Your task to perform on an android device: turn off location Image 0: 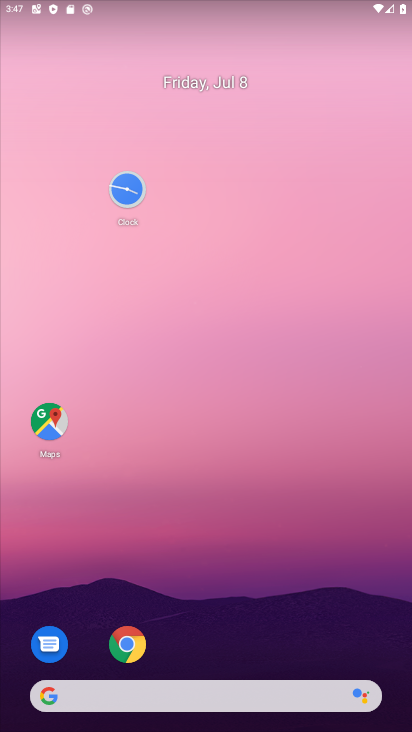
Step 0: drag from (201, 722) to (187, 89)
Your task to perform on an android device: turn off location Image 1: 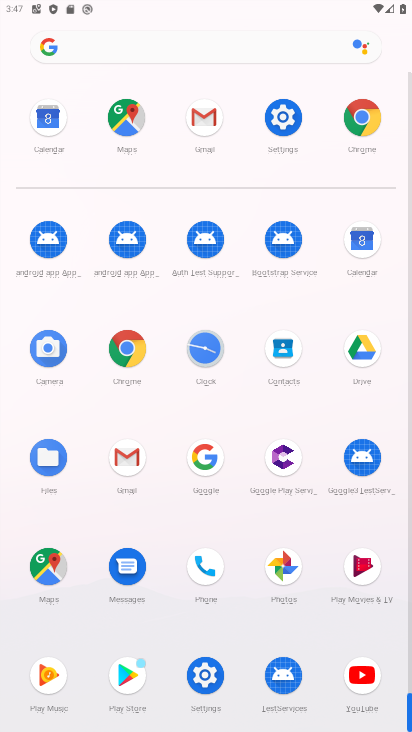
Step 1: click (199, 677)
Your task to perform on an android device: turn off location Image 2: 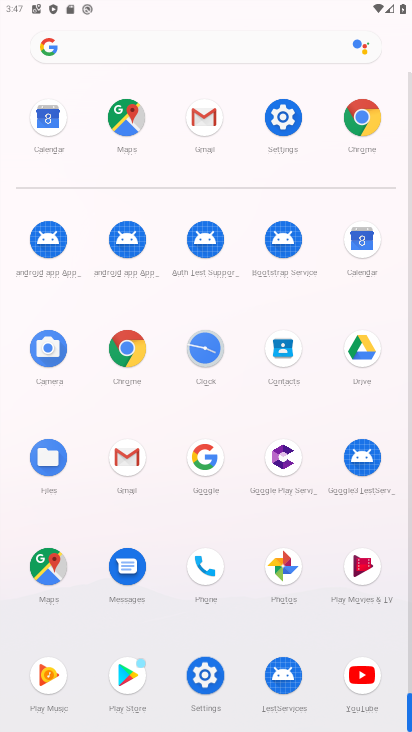
Step 2: click (190, 677)
Your task to perform on an android device: turn off location Image 3: 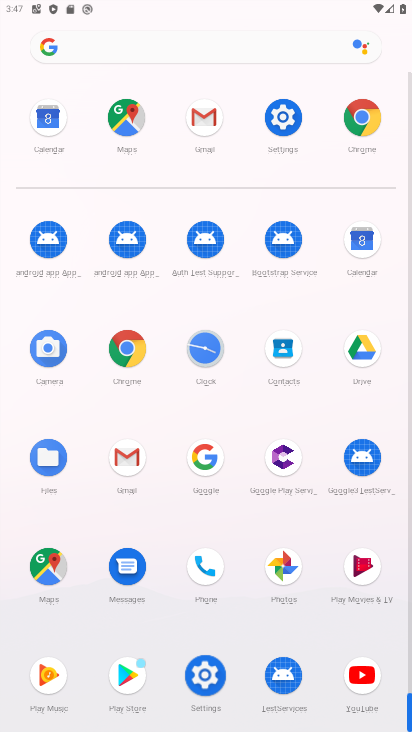
Step 3: click (190, 677)
Your task to perform on an android device: turn off location Image 4: 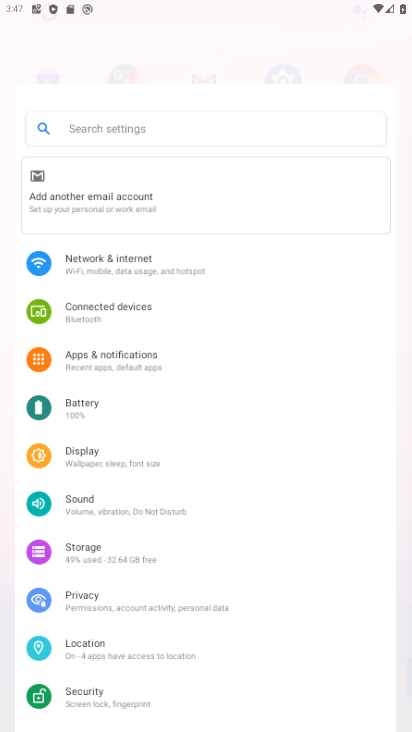
Step 4: click (208, 680)
Your task to perform on an android device: turn off location Image 5: 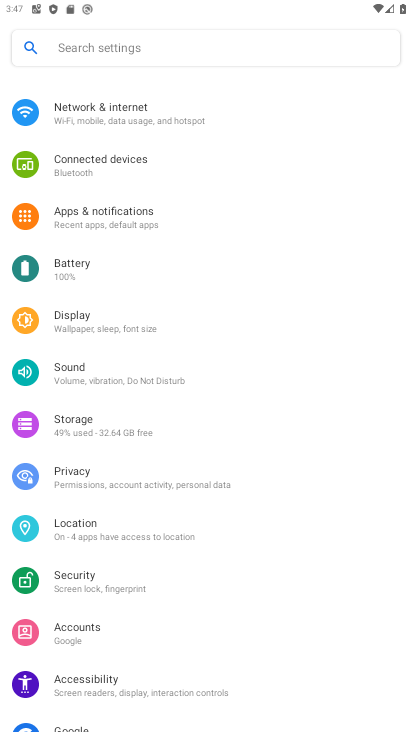
Step 5: click (208, 676)
Your task to perform on an android device: turn off location Image 6: 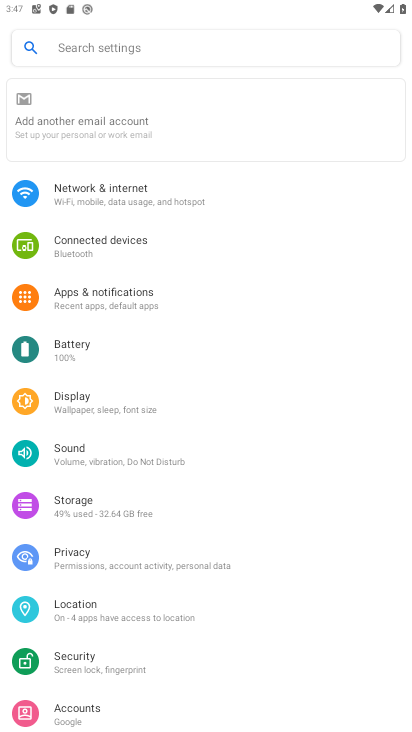
Step 6: click (212, 675)
Your task to perform on an android device: turn off location Image 7: 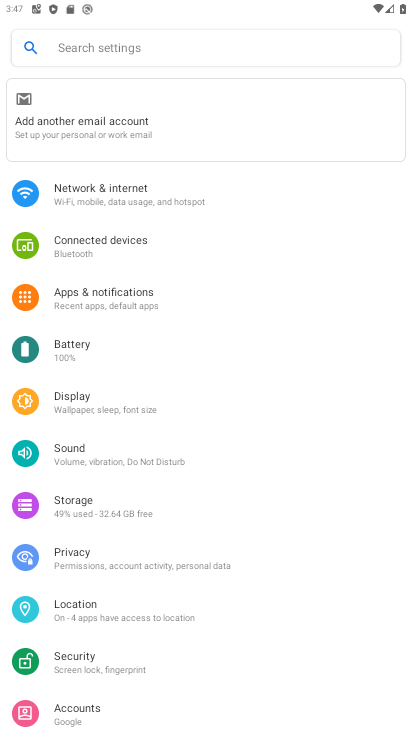
Step 7: click (214, 673)
Your task to perform on an android device: turn off location Image 8: 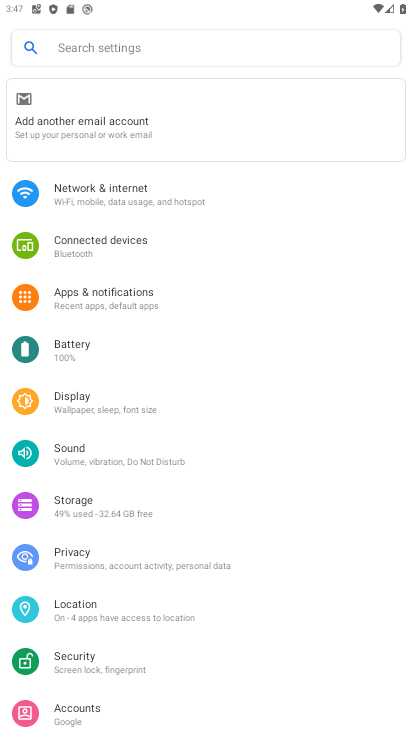
Step 8: click (214, 673)
Your task to perform on an android device: turn off location Image 9: 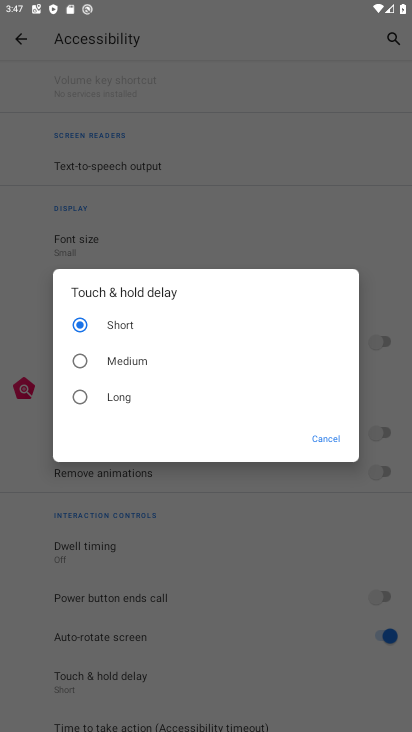
Step 9: click (22, 39)
Your task to perform on an android device: turn off location Image 10: 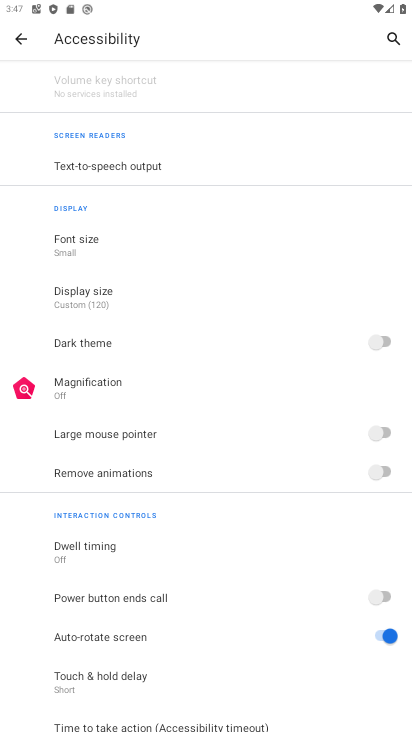
Step 10: click (17, 42)
Your task to perform on an android device: turn off location Image 11: 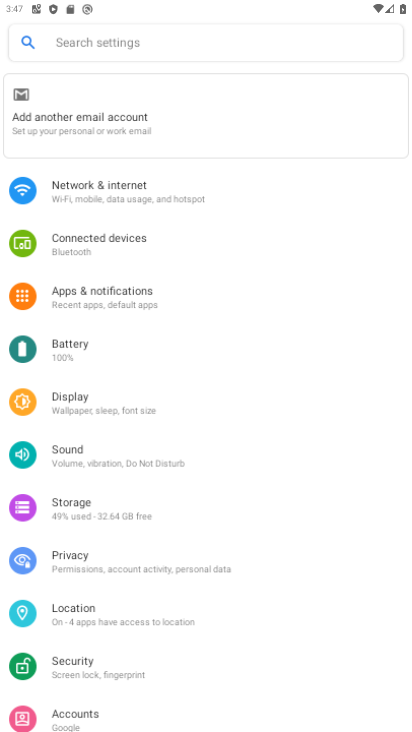
Step 11: click (17, 42)
Your task to perform on an android device: turn off location Image 12: 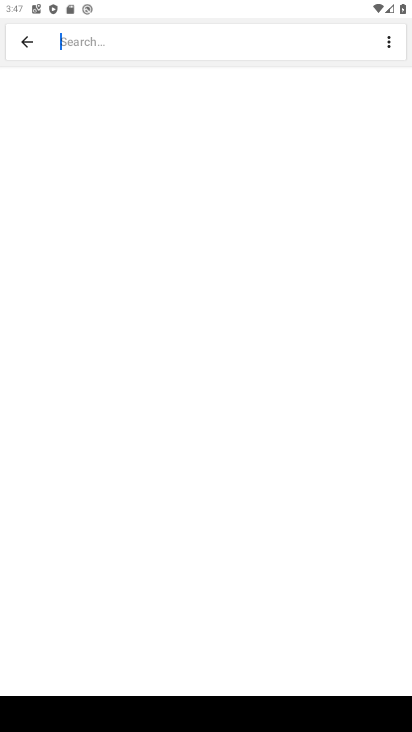
Step 12: click (34, 38)
Your task to perform on an android device: turn off location Image 13: 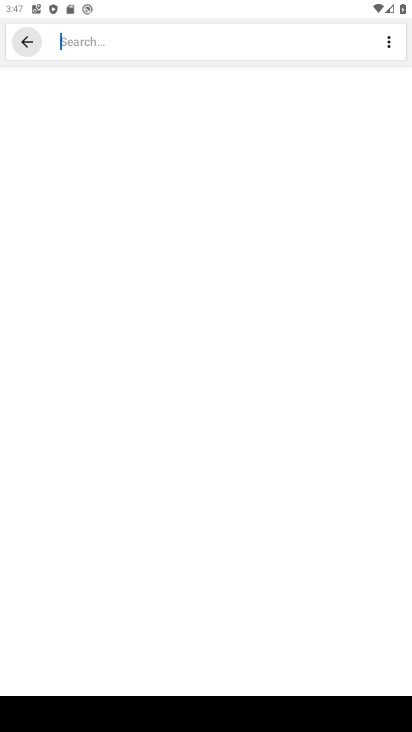
Step 13: click (31, 42)
Your task to perform on an android device: turn off location Image 14: 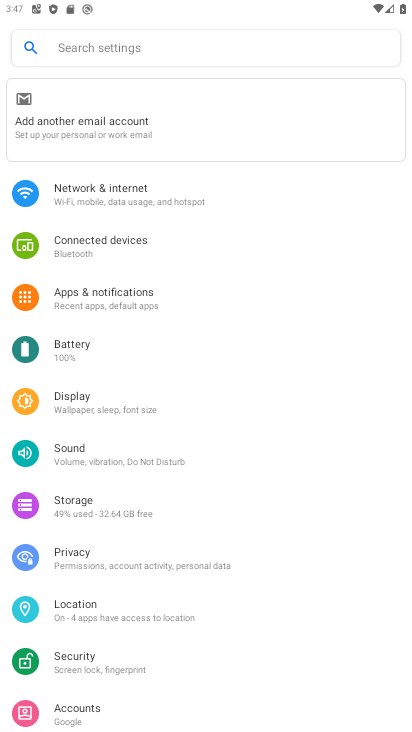
Step 14: click (94, 600)
Your task to perform on an android device: turn off location Image 15: 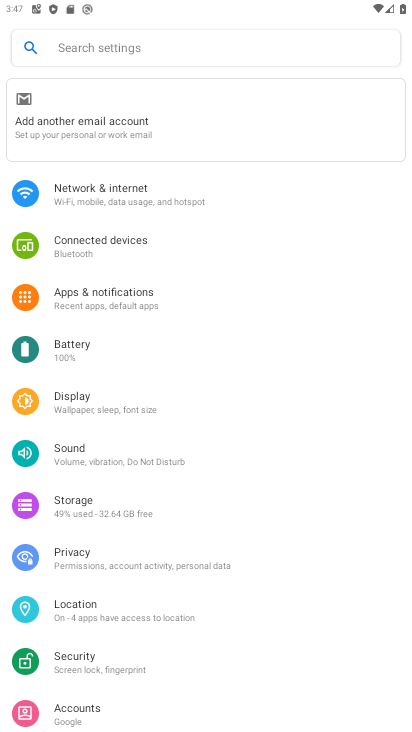
Step 15: click (96, 597)
Your task to perform on an android device: turn off location Image 16: 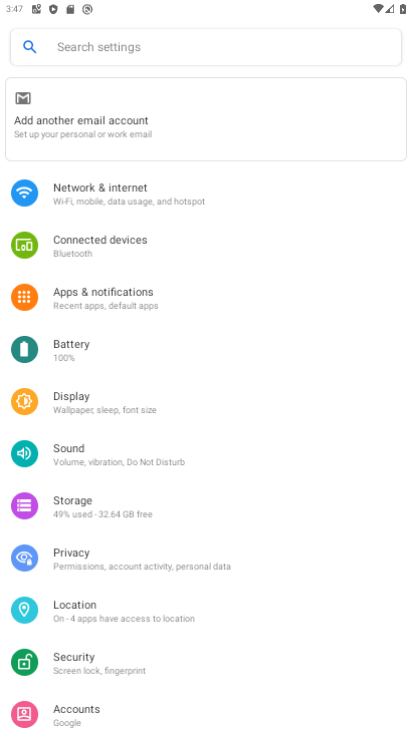
Step 16: click (99, 597)
Your task to perform on an android device: turn off location Image 17: 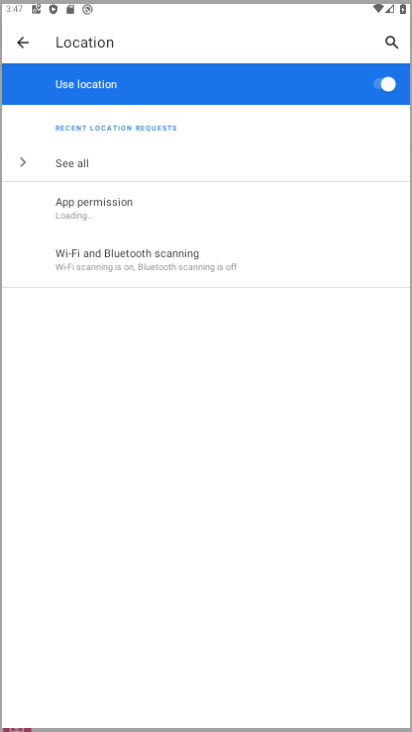
Step 17: click (100, 595)
Your task to perform on an android device: turn off location Image 18: 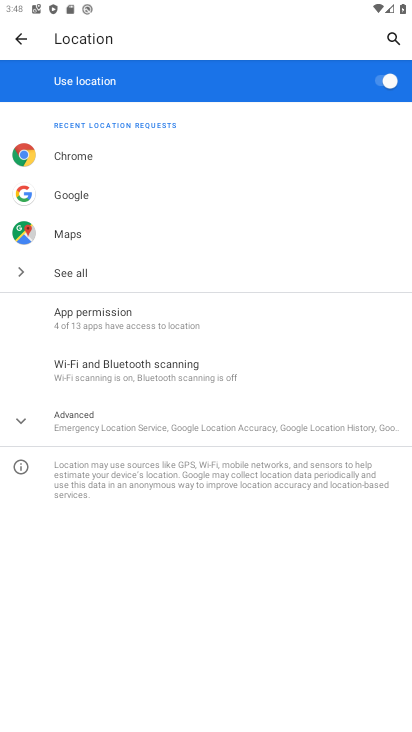
Step 18: click (77, 417)
Your task to perform on an android device: turn off location Image 19: 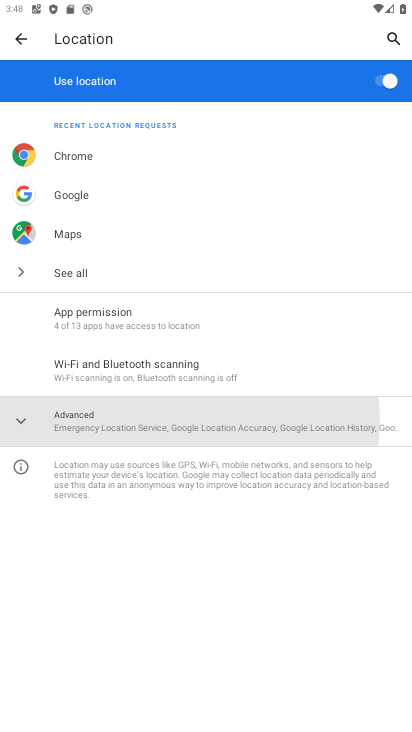
Step 19: click (77, 415)
Your task to perform on an android device: turn off location Image 20: 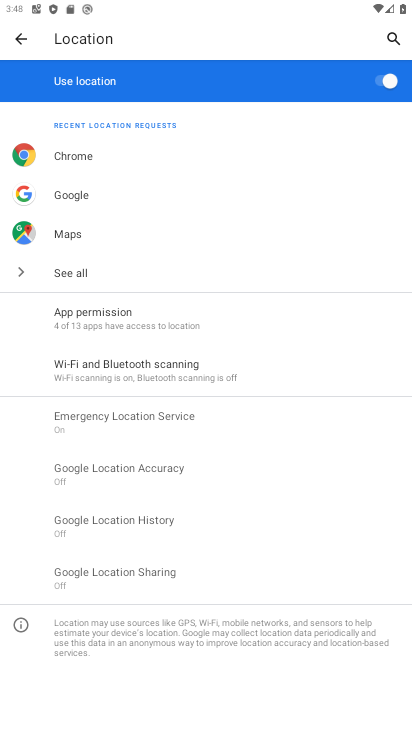
Step 20: click (78, 414)
Your task to perform on an android device: turn off location Image 21: 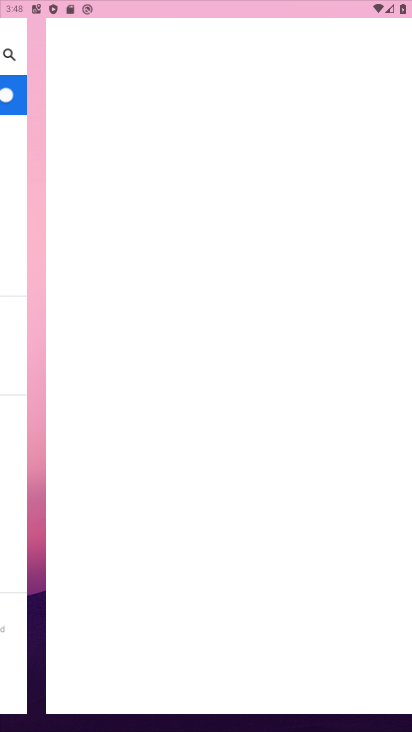
Step 21: click (79, 413)
Your task to perform on an android device: turn off location Image 22: 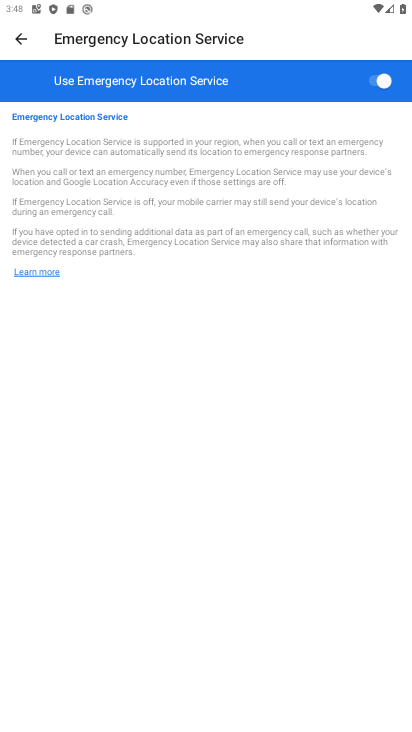
Step 22: click (12, 39)
Your task to perform on an android device: turn off location Image 23: 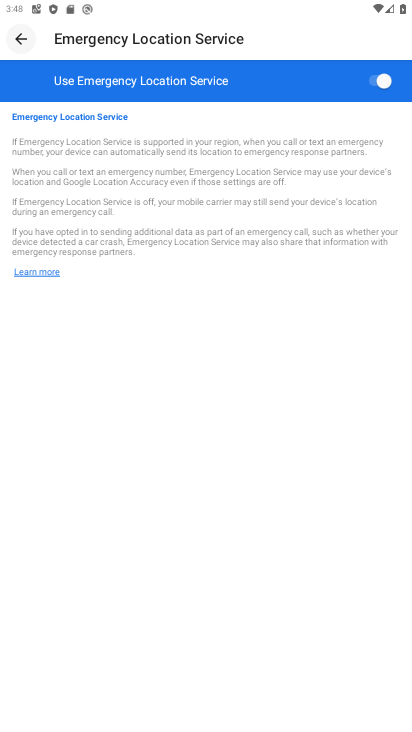
Step 23: click (14, 37)
Your task to perform on an android device: turn off location Image 24: 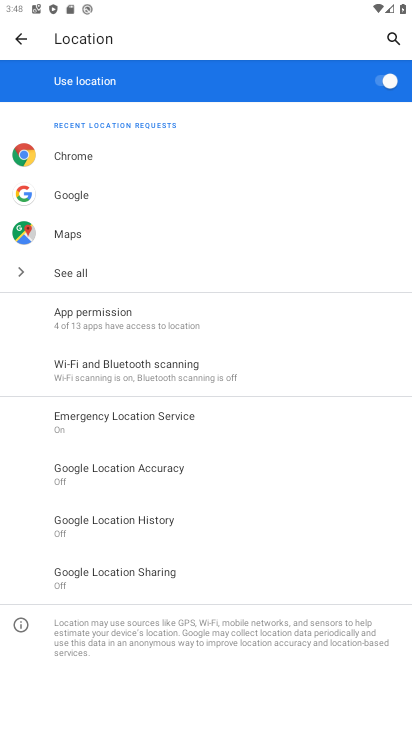
Step 24: click (391, 86)
Your task to perform on an android device: turn off location Image 25: 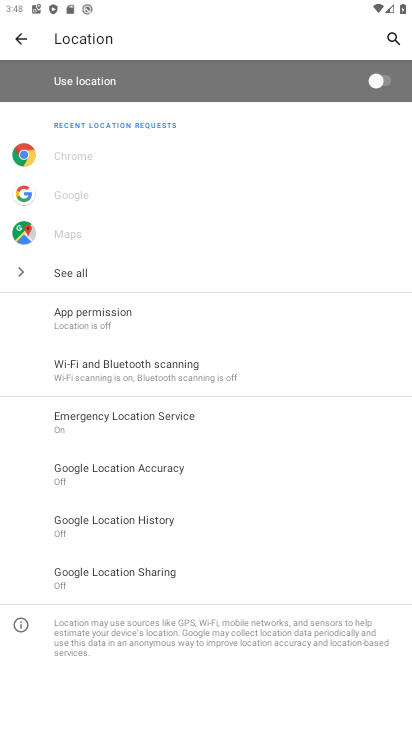
Step 25: task complete